Your task to perform on an android device: Play the new Ariana Grande video on YouTube Image 0: 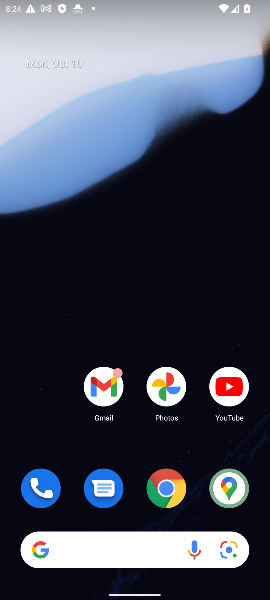
Step 0: drag from (124, 463) to (148, 30)
Your task to perform on an android device: Play the new Ariana Grande video on YouTube Image 1: 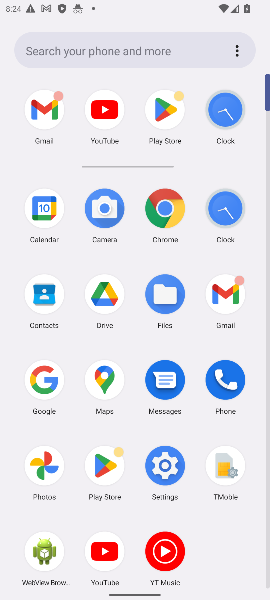
Step 1: click (104, 562)
Your task to perform on an android device: Play the new Ariana Grande video on YouTube Image 2: 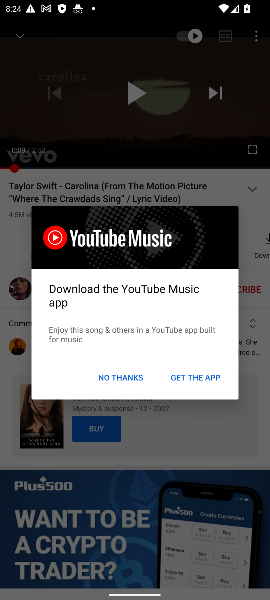
Step 2: drag from (176, 82) to (66, 383)
Your task to perform on an android device: Play the new Ariana Grande video on YouTube Image 3: 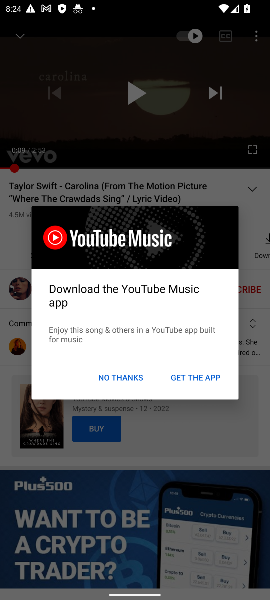
Step 3: click (117, 383)
Your task to perform on an android device: Play the new Ariana Grande video on YouTube Image 4: 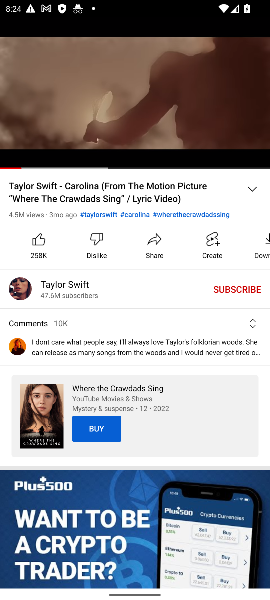
Step 4: drag from (146, 95) to (111, 464)
Your task to perform on an android device: Play the new Ariana Grande video on YouTube Image 5: 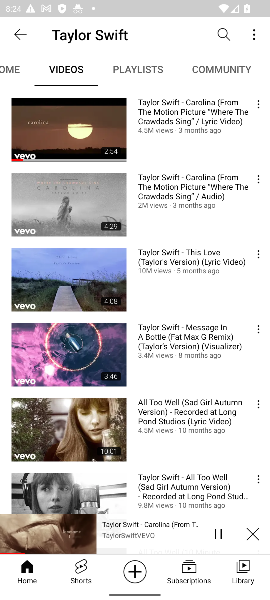
Step 5: click (165, 42)
Your task to perform on an android device: Play the new Ariana Grande video on YouTube Image 6: 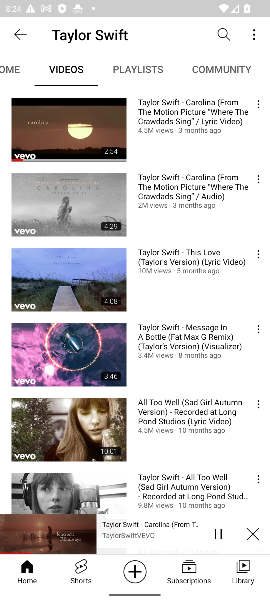
Step 6: click (166, 23)
Your task to perform on an android device: Play the new Ariana Grande video on YouTube Image 7: 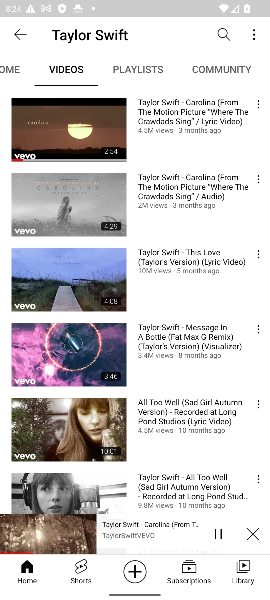
Step 7: click (113, 37)
Your task to perform on an android device: Play the new Ariana Grande video on YouTube Image 8: 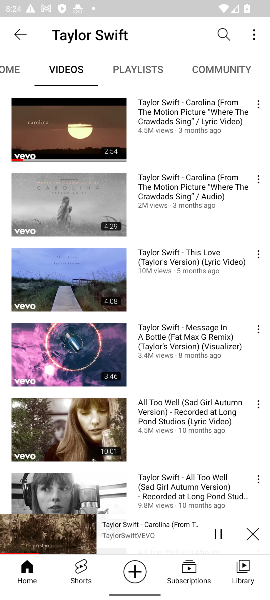
Step 8: press back button
Your task to perform on an android device: Play the new Ariana Grande video on YouTube Image 9: 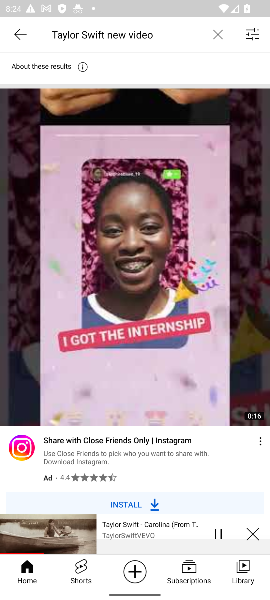
Step 9: click (223, 39)
Your task to perform on an android device: Play the new Ariana Grande video on YouTube Image 10: 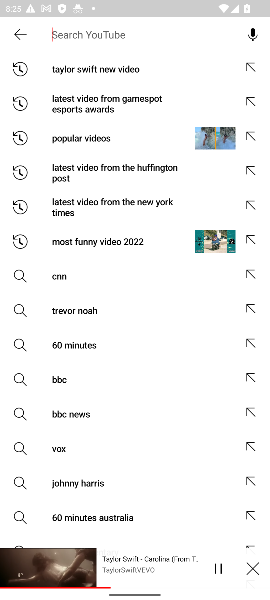
Step 10: type " Ariana Grande"
Your task to perform on an android device: Play the new Ariana Grande video on YouTube Image 11: 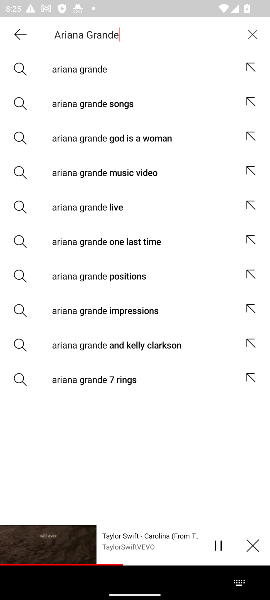
Step 11: press enter
Your task to perform on an android device: Play the new Ariana Grande video on YouTube Image 12: 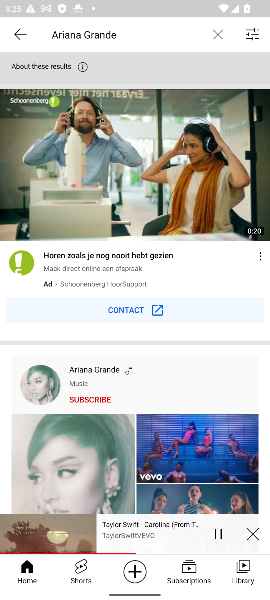
Step 12: click (71, 367)
Your task to perform on an android device: Play the new Ariana Grande video on YouTube Image 13: 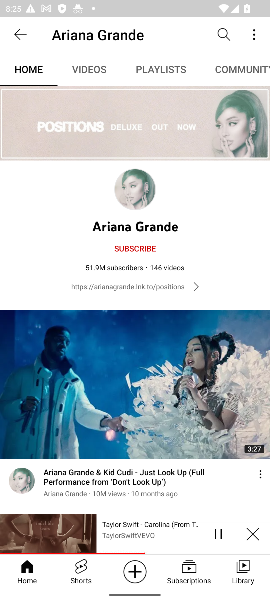
Step 13: click (98, 56)
Your task to perform on an android device: Play the new Ariana Grande video on YouTube Image 14: 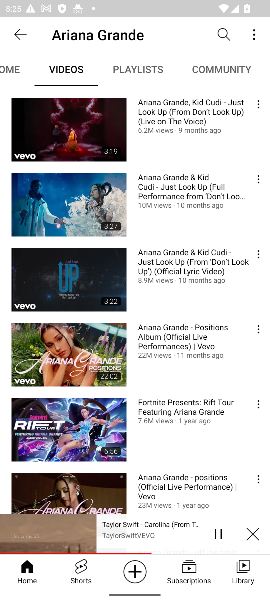
Step 14: click (88, 125)
Your task to perform on an android device: Play the new Ariana Grande video on YouTube Image 15: 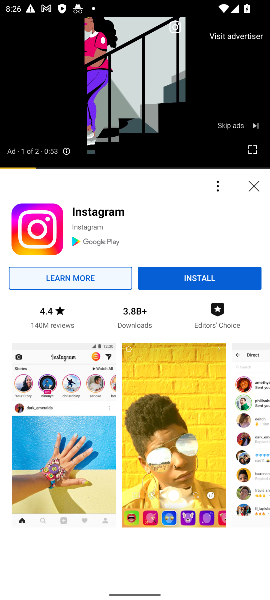
Step 15: click (223, 125)
Your task to perform on an android device: Play the new Ariana Grande video on YouTube Image 16: 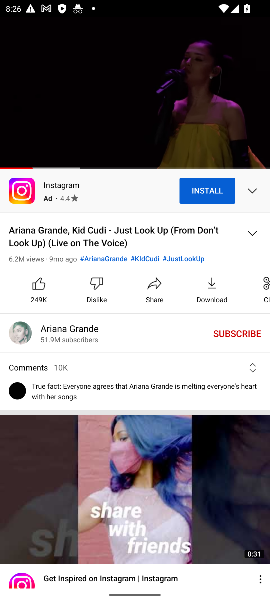
Step 16: task complete